Your task to perform on an android device: turn on location history Image 0: 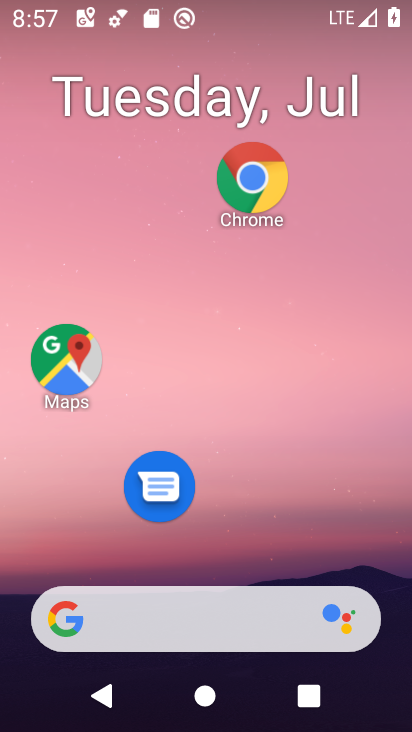
Step 0: drag from (220, 446) to (288, 139)
Your task to perform on an android device: turn on location history Image 1: 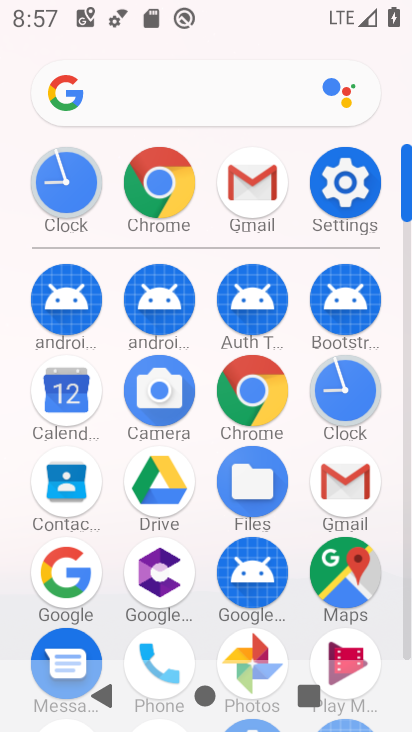
Step 1: click (345, 197)
Your task to perform on an android device: turn on location history Image 2: 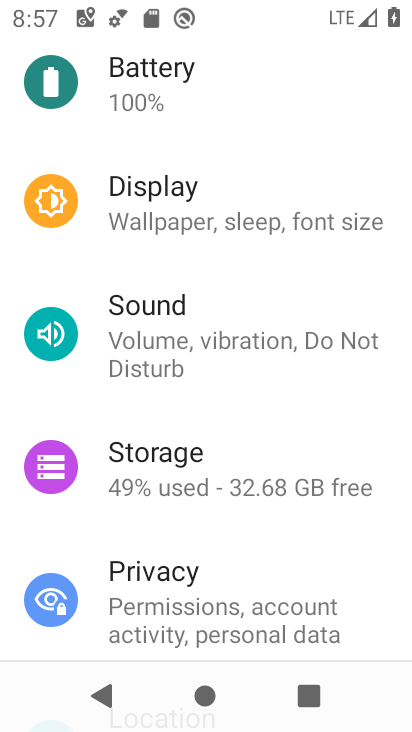
Step 2: drag from (225, 559) to (297, 146)
Your task to perform on an android device: turn on location history Image 3: 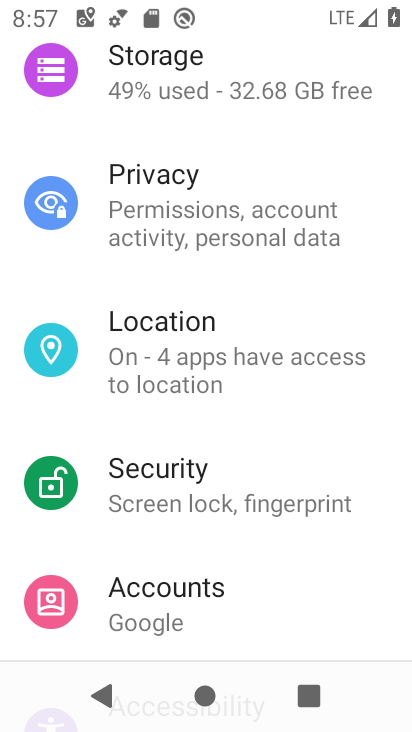
Step 3: drag from (198, 553) to (278, 269)
Your task to perform on an android device: turn on location history Image 4: 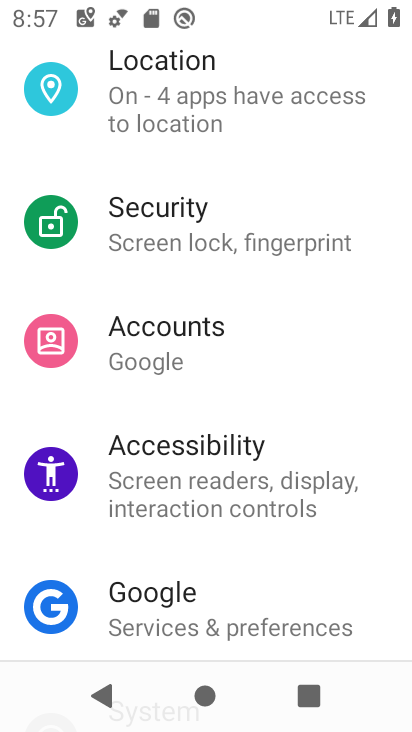
Step 4: click (268, 111)
Your task to perform on an android device: turn on location history Image 5: 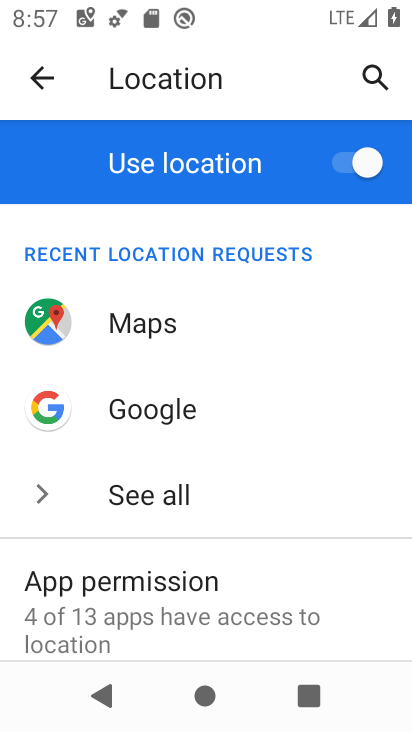
Step 5: drag from (183, 565) to (251, 171)
Your task to perform on an android device: turn on location history Image 6: 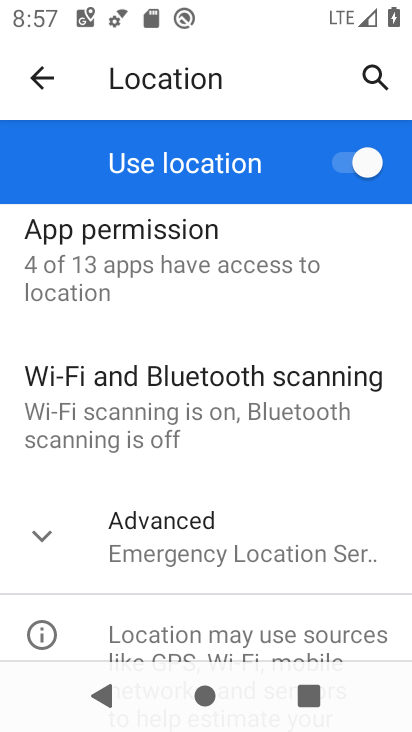
Step 6: drag from (198, 576) to (296, 165)
Your task to perform on an android device: turn on location history Image 7: 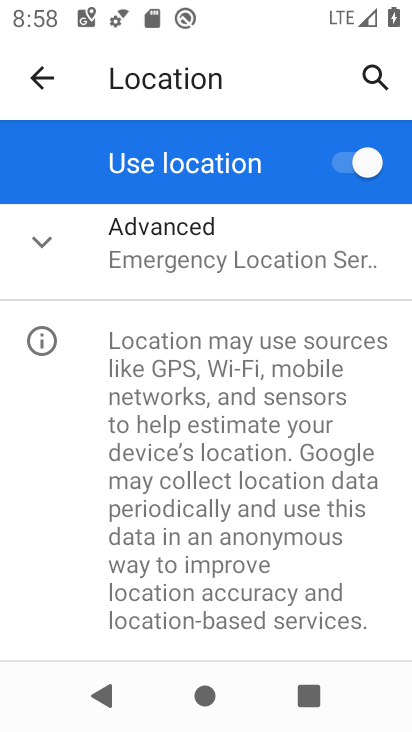
Step 7: click (207, 275)
Your task to perform on an android device: turn on location history Image 8: 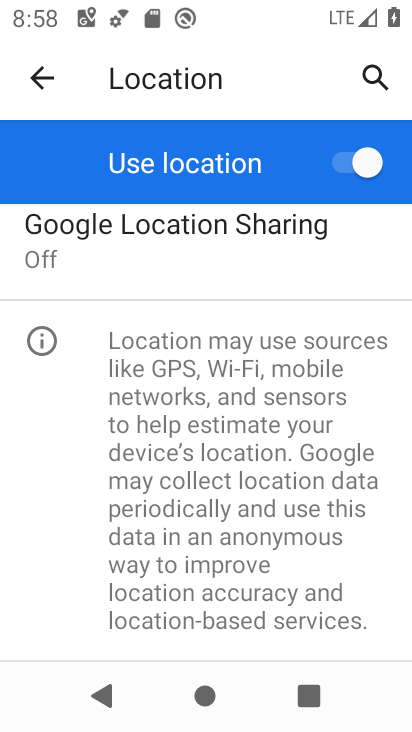
Step 8: drag from (213, 365) to (184, 613)
Your task to perform on an android device: turn on location history Image 9: 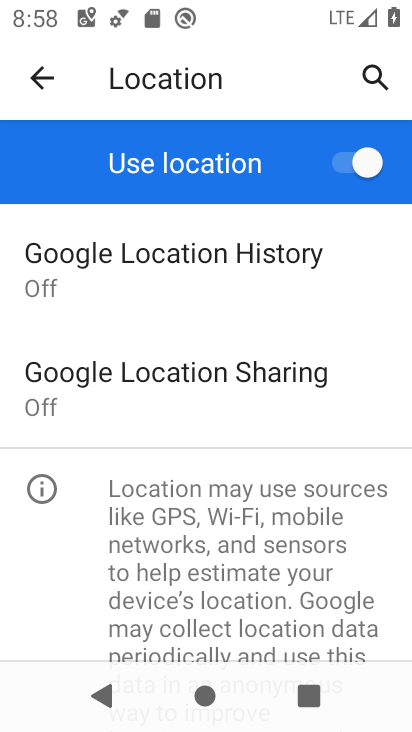
Step 9: click (245, 274)
Your task to perform on an android device: turn on location history Image 10: 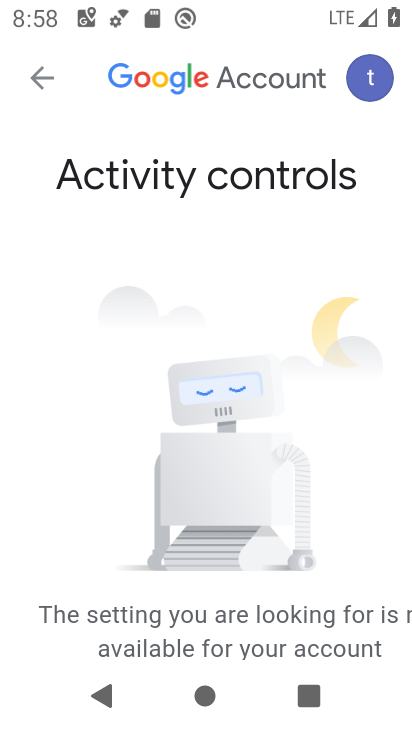
Step 10: task complete